Your task to perform on an android device: Open sound settings Image 0: 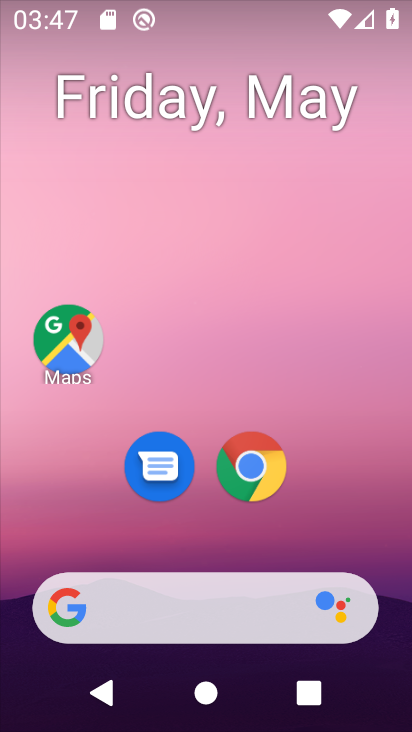
Step 0: drag from (399, 352) to (385, 214)
Your task to perform on an android device: Open sound settings Image 1: 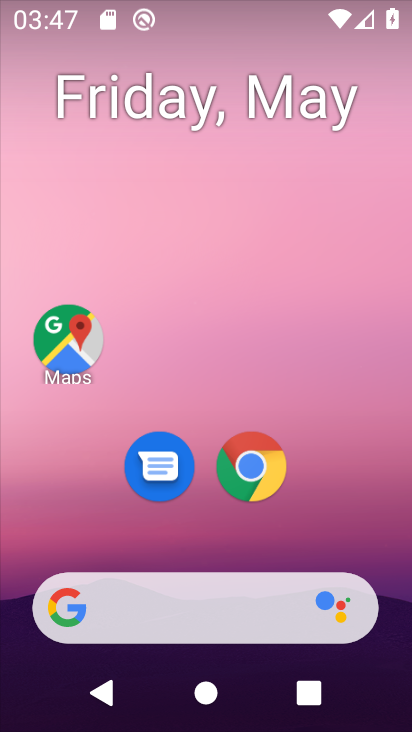
Step 1: drag from (397, 14) to (406, 136)
Your task to perform on an android device: Open sound settings Image 2: 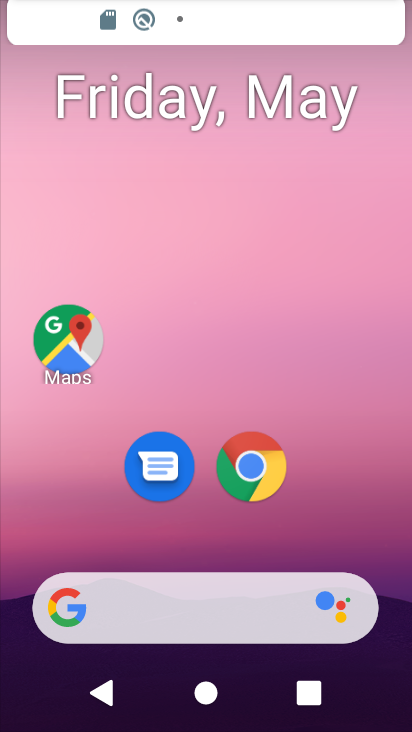
Step 2: drag from (390, 637) to (385, 114)
Your task to perform on an android device: Open sound settings Image 3: 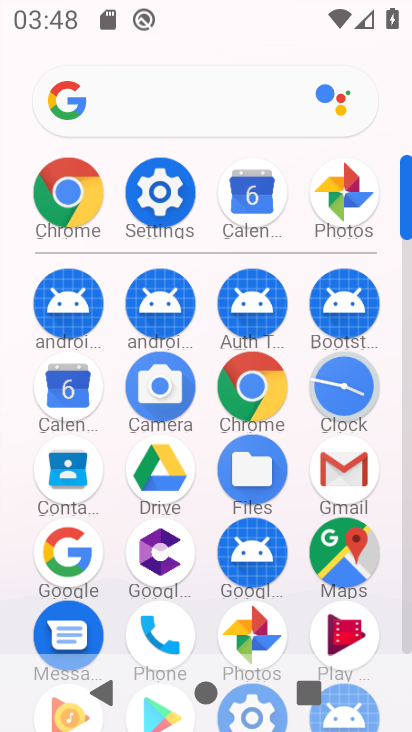
Step 3: click (154, 188)
Your task to perform on an android device: Open sound settings Image 4: 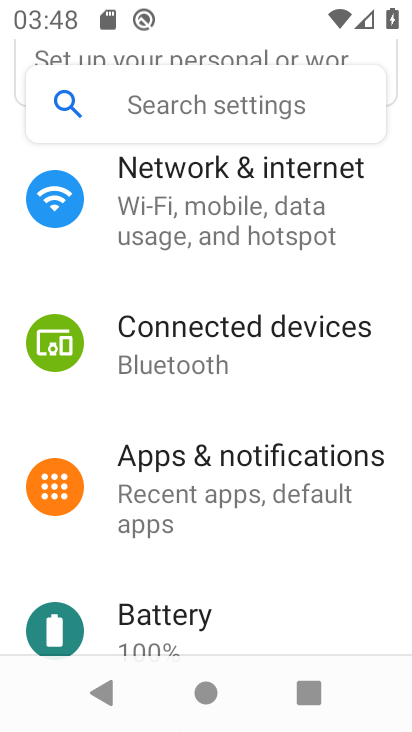
Step 4: drag from (305, 624) to (332, 235)
Your task to perform on an android device: Open sound settings Image 5: 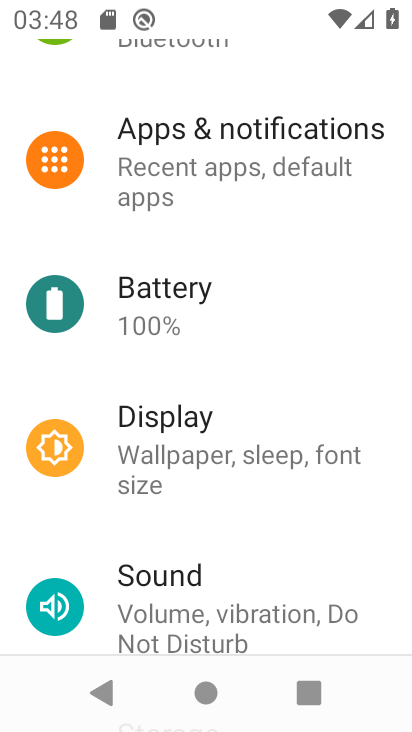
Step 5: click (184, 605)
Your task to perform on an android device: Open sound settings Image 6: 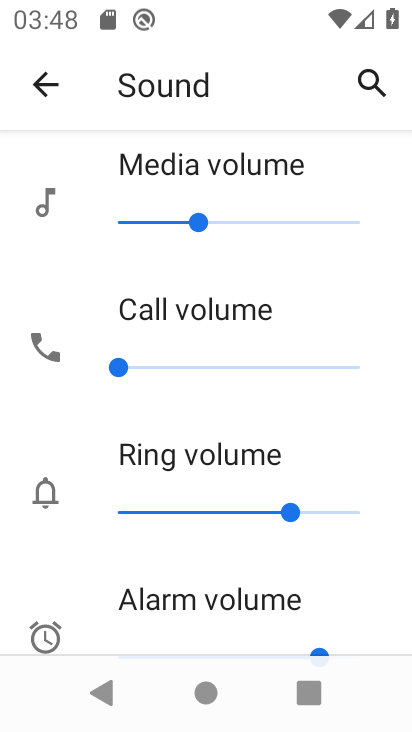
Step 6: task complete